Your task to perform on an android device: toggle improve location accuracy Image 0: 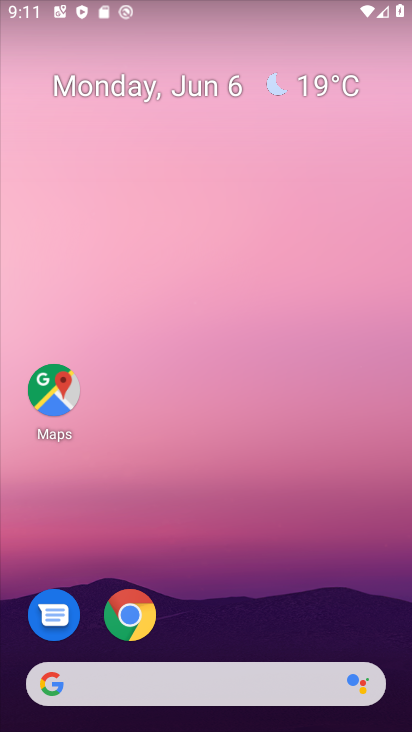
Step 0: drag from (237, 648) to (228, 139)
Your task to perform on an android device: toggle improve location accuracy Image 1: 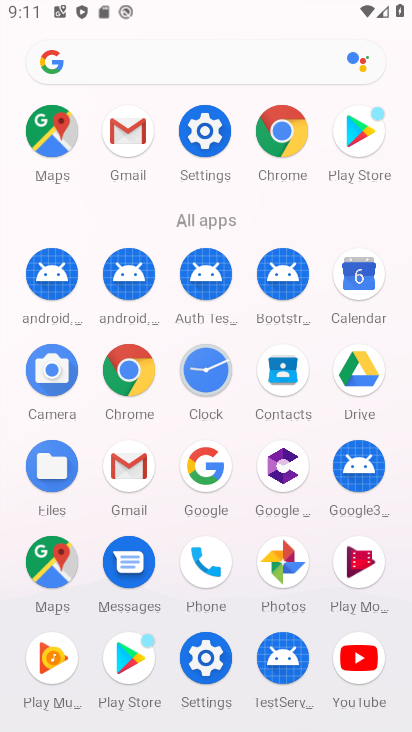
Step 1: click (211, 138)
Your task to perform on an android device: toggle improve location accuracy Image 2: 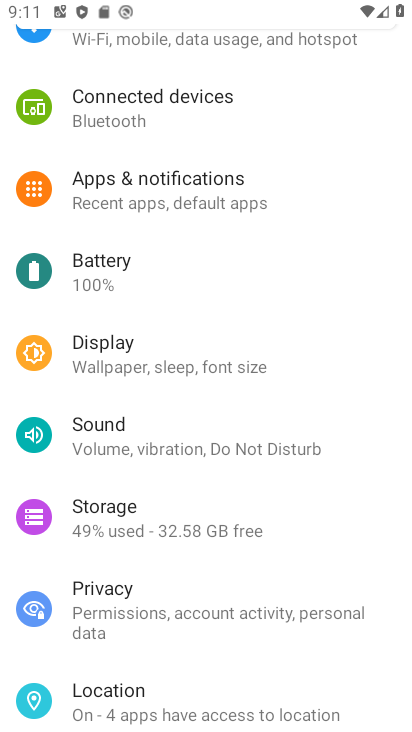
Step 2: click (115, 672)
Your task to perform on an android device: toggle improve location accuracy Image 3: 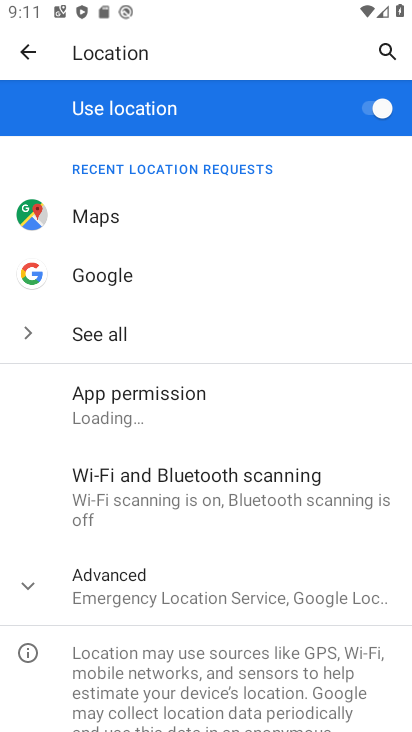
Step 3: click (90, 571)
Your task to perform on an android device: toggle improve location accuracy Image 4: 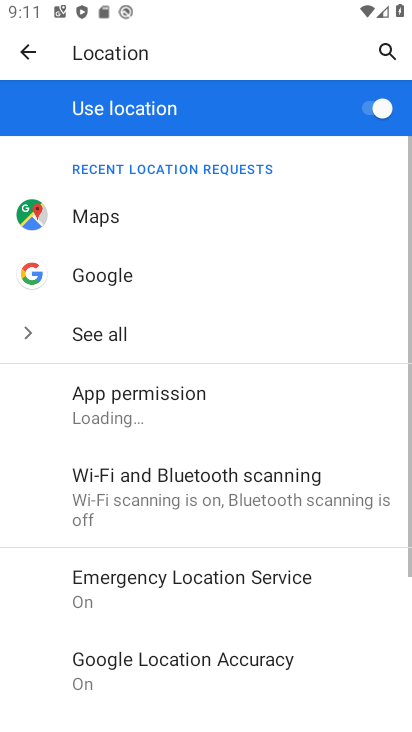
Step 4: drag from (90, 571) to (0, 89)
Your task to perform on an android device: toggle improve location accuracy Image 5: 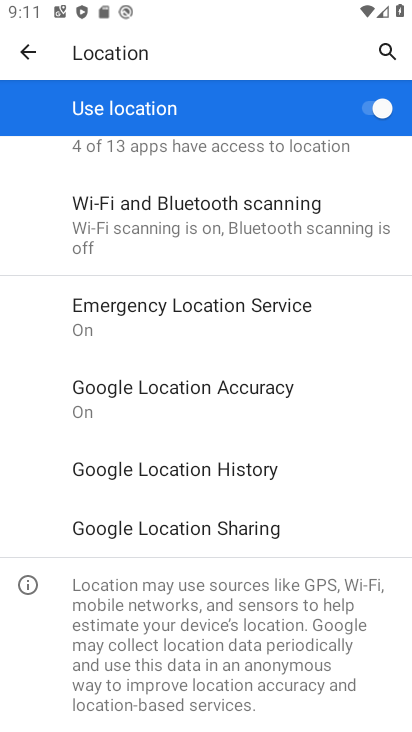
Step 5: click (92, 390)
Your task to perform on an android device: toggle improve location accuracy Image 6: 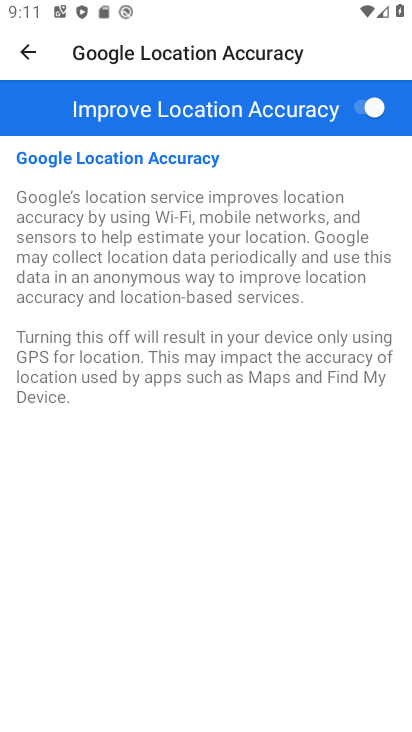
Step 6: click (370, 116)
Your task to perform on an android device: toggle improve location accuracy Image 7: 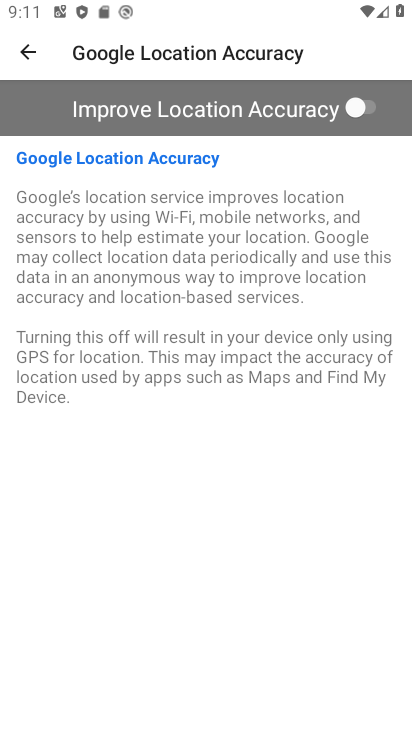
Step 7: task complete